Your task to perform on an android device: Clear all items from cart on ebay.com. Search for bose soundlink on ebay.com, select the first entry, add it to the cart, then select checkout. Image 0: 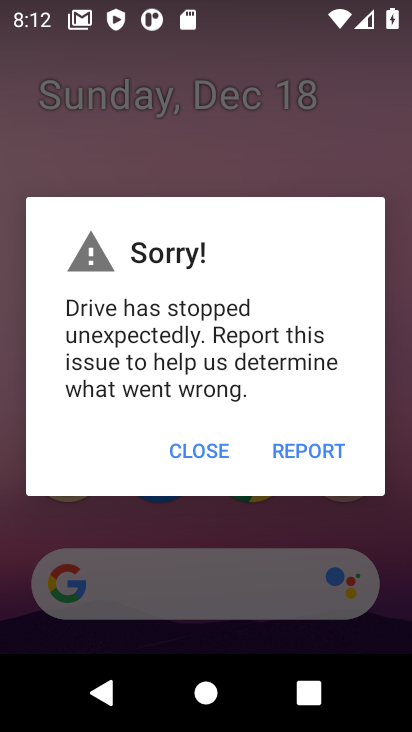
Step 0: press home button
Your task to perform on an android device: Clear all items from cart on ebay.com. Search for bose soundlink on ebay.com, select the first entry, add it to the cart, then select checkout. Image 1: 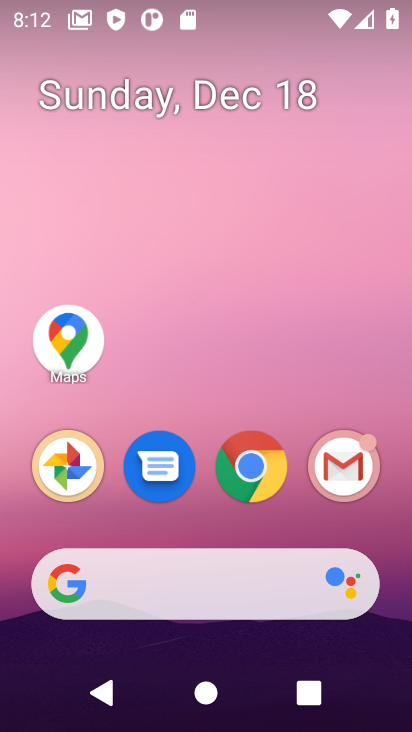
Step 1: click (250, 466)
Your task to perform on an android device: Clear all items from cart on ebay.com. Search for bose soundlink on ebay.com, select the first entry, add it to the cart, then select checkout. Image 2: 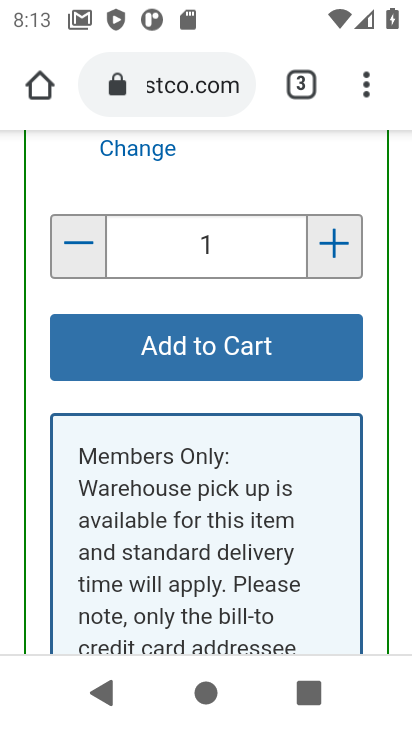
Step 2: click (195, 84)
Your task to perform on an android device: Clear all items from cart on ebay.com. Search for bose soundlink on ebay.com, select the first entry, add it to the cart, then select checkout. Image 3: 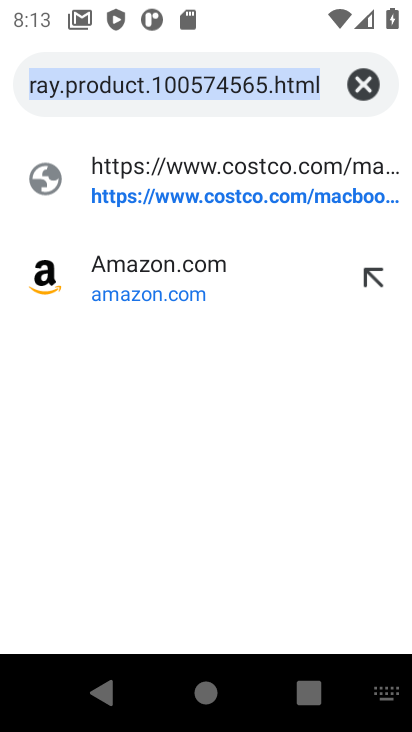
Step 3: type "ebay"
Your task to perform on an android device: Clear all items from cart on ebay.com. Search for bose soundlink on ebay.com, select the first entry, add it to the cart, then select checkout. Image 4: 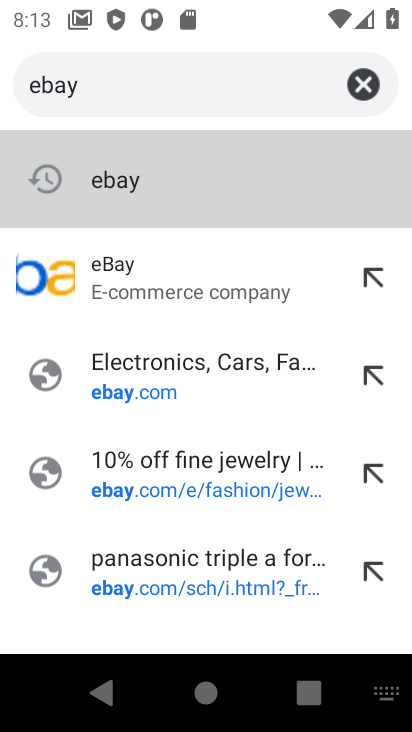
Step 4: click (117, 276)
Your task to perform on an android device: Clear all items from cart on ebay.com. Search for bose soundlink on ebay.com, select the first entry, add it to the cart, then select checkout. Image 5: 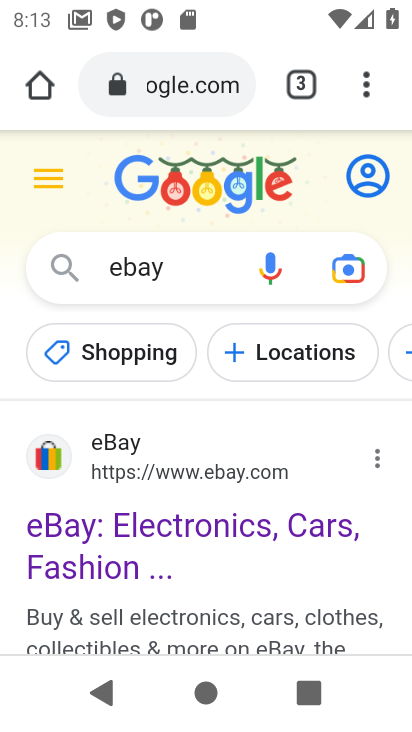
Step 5: click (168, 536)
Your task to perform on an android device: Clear all items from cart on ebay.com. Search for bose soundlink on ebay.com, select the first entry, add it to the cart, then select checkout. Image 6: 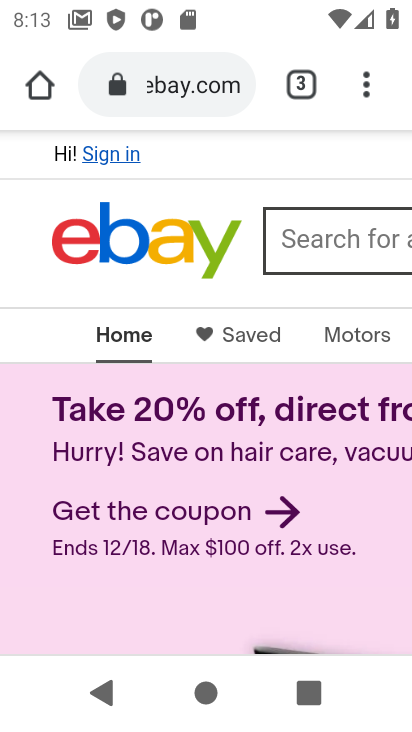
Step 6: click (359, 244)
Your task to perform on an android device: Clear all items from cart on ebay.com. Search for bose soundlink on ebay.com, select the first entry, add it to the cart, then select checkout. Image 7: 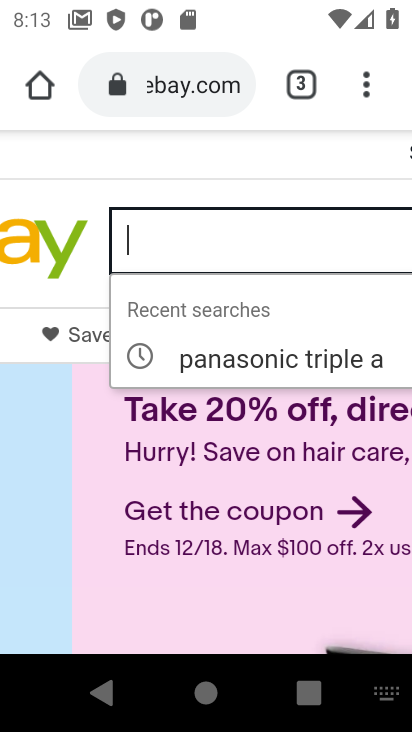
Step 7: type "bose soundlink"
Your task to perform on an android device: Clear all items from cart on ebay.com. Search for bose soundlink on ebay.com, select the first entry, add it to the cart, then select checkout. Image 8: 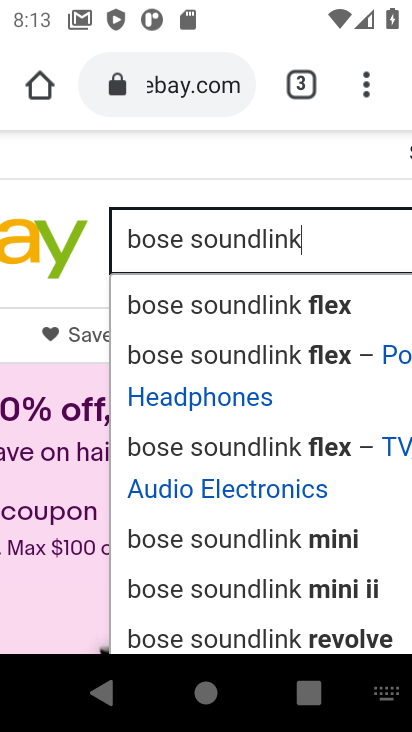
Step 8: click (269, 309)
Your task to perform on an android device: Clear all items from cart on ebay.com. Search for bose soundlink on ebay.com, select the first entry, add it to the cart, then select checkout. Image 9: 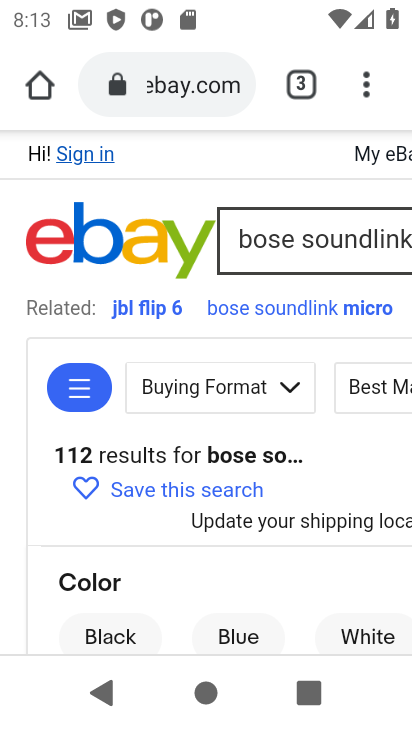
Step 9: drag from (197, 571) to (206, 141)
Your task to perform on an android device: Clear all items from cart on ebay.com. Search for bose soundlink on ebay.com, select the first entry, add it to the cart, then select checkout. Image 10: 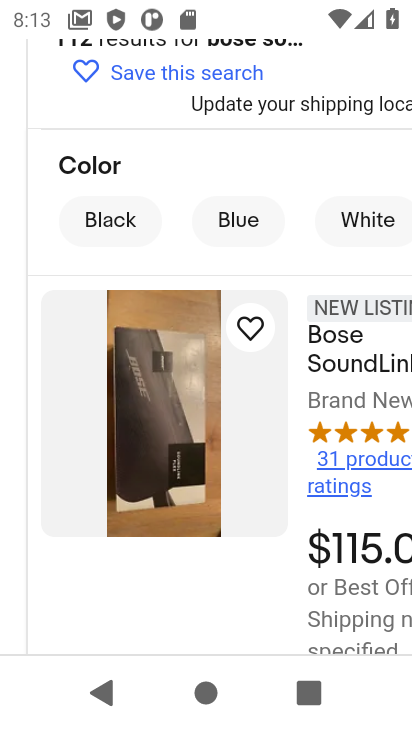
Step 10: click (348, 328)
Your task to perform on an android device: Clear all items from cart on ebay.com. Search for bose soundlink on ebay.com, select the first entry, add it to the cart, then select checkout. Image 11: 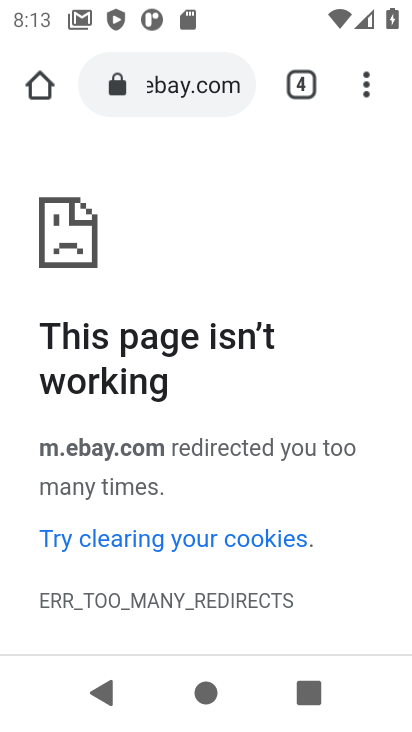
Step 11: task complete